Your task to perform on an android device: Open Google Image 0: 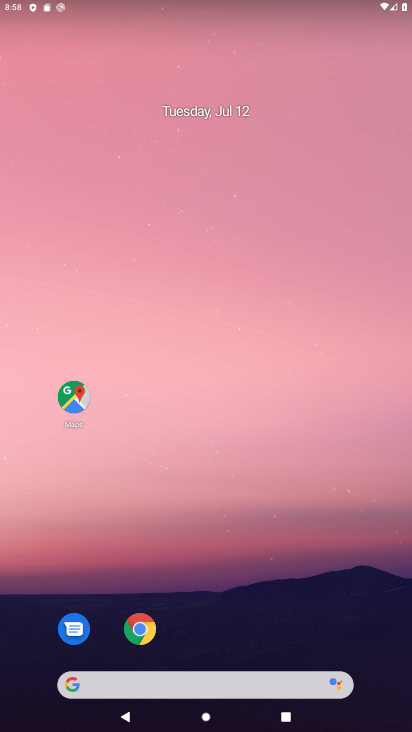
Step 0: drag from (264, 592) to (214, 168)
Your task to perform on an android device: Open Google Image 1: 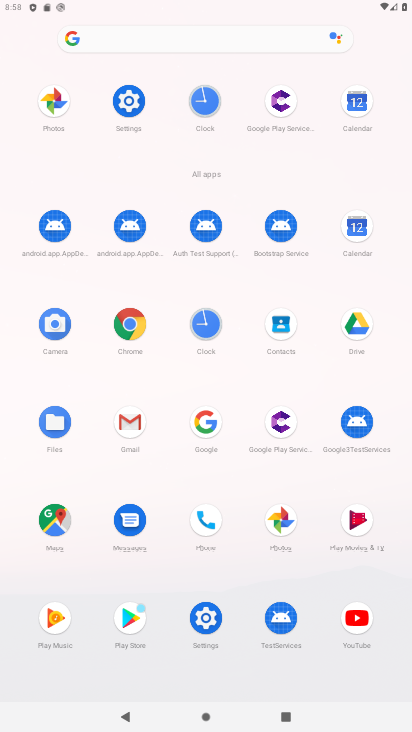
Step 1: click (199, 412)
Your task to perform on an android device: Open Google Image 2: 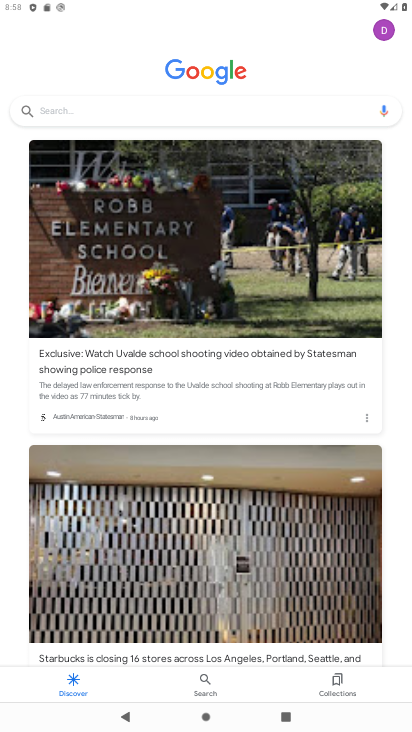
Step 2: task complete